Your task to perform on an android device: Show me productivity apps on the Play Store Image 0: 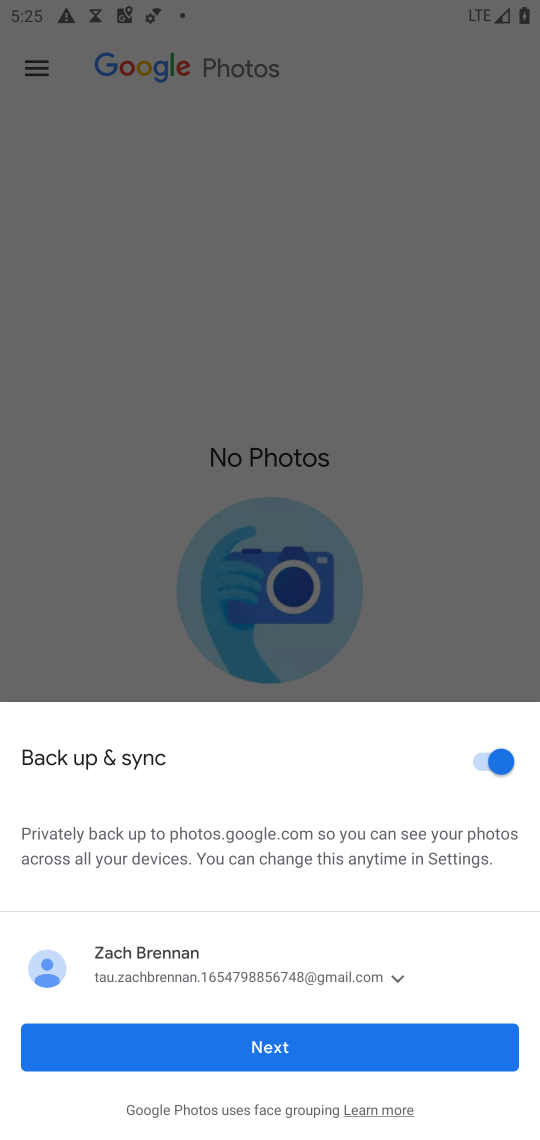
Step 0: press home button
Your task to perform on an android device: Show me productivity apps on the Play Store Image 1: 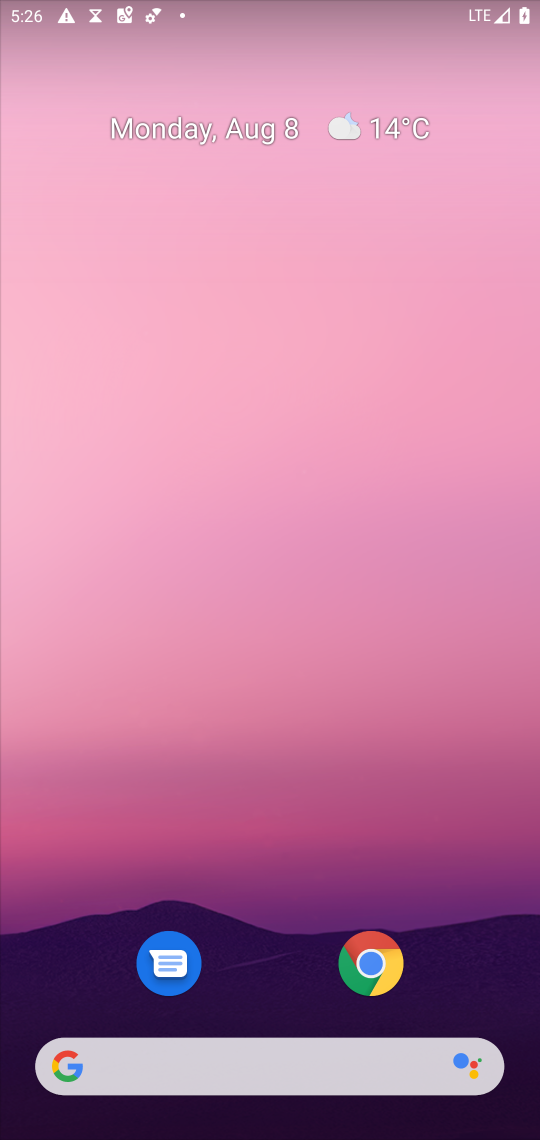
Step 1: drag from (143, 379) to (125, 10)
Your task to perform on an android device: Show me productivity apps on the Play Store Image 2: 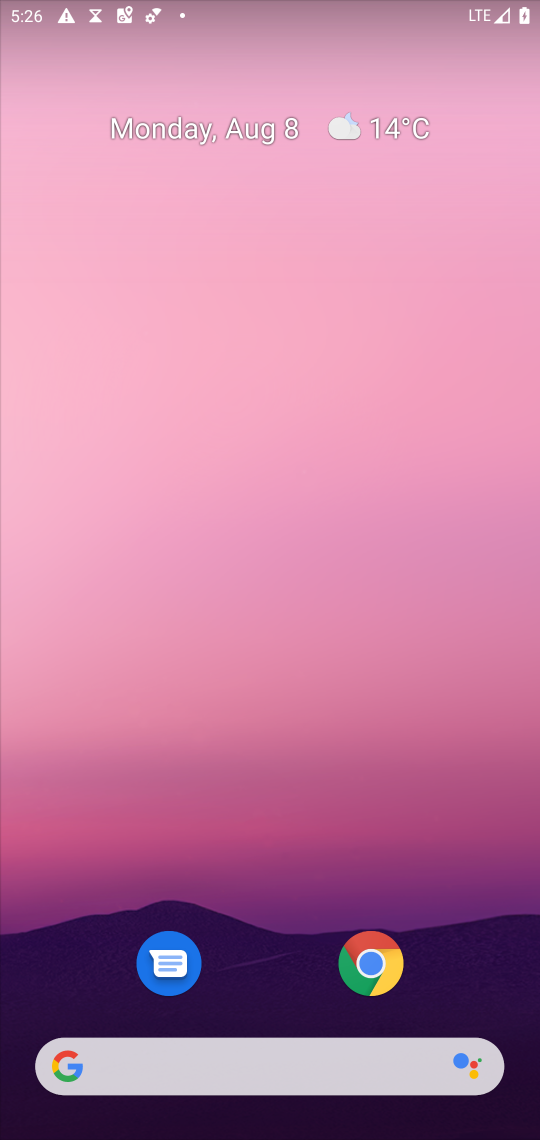
Step 2: drag from (241, 837) to (237, 2)
Your task to perform on an android device: Show me productivity apps on the Play Store Image 3: 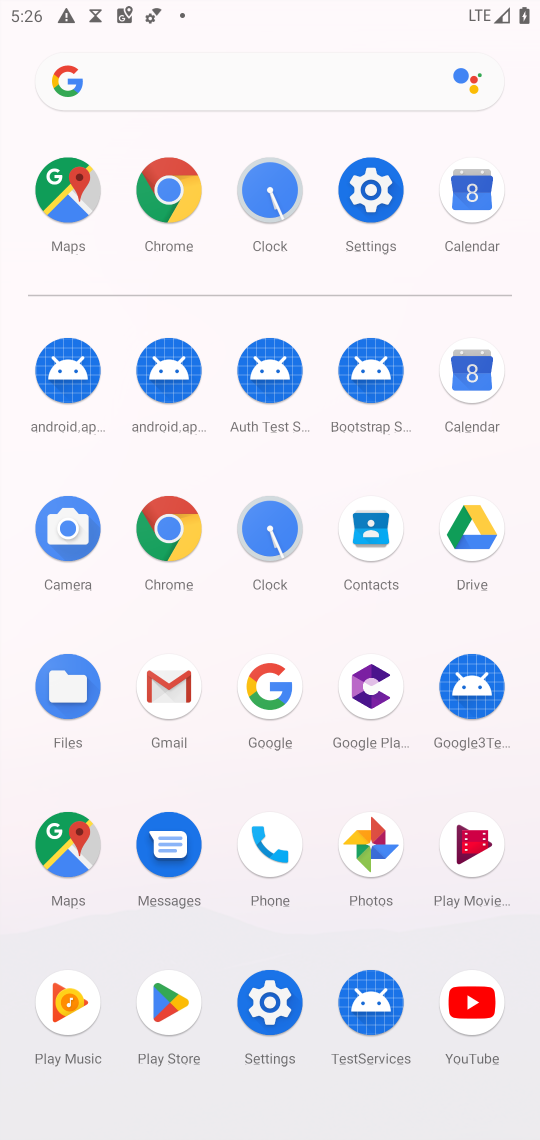
Step 3: click (172, 986)
Your task to perform on an android device: Show me productivity apps on the Play Store Image 4: 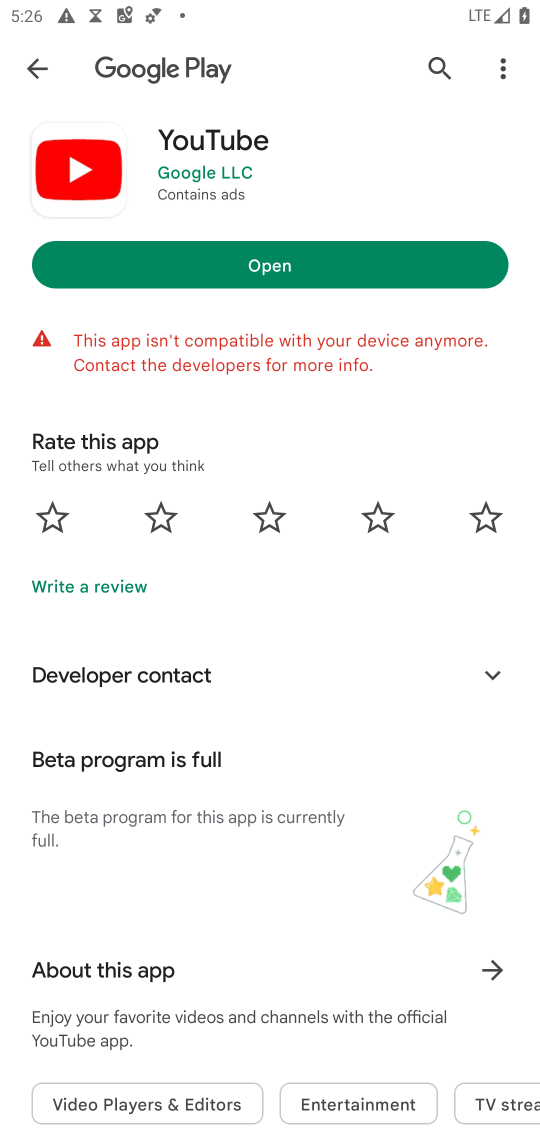
Step 4: click (50, 75)
Your task to perform on an android device: Show me productivity apps on the Play Store Image 5: 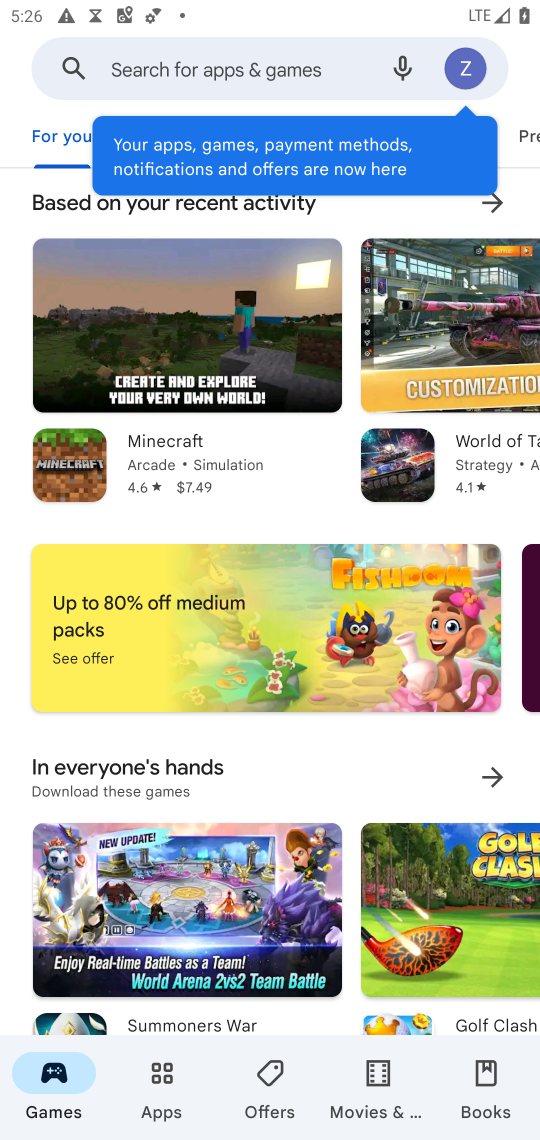
Step 5: click (172, 1070)
Your task to perform on an android device: Show me productivity apps on the Play Store Image 6: 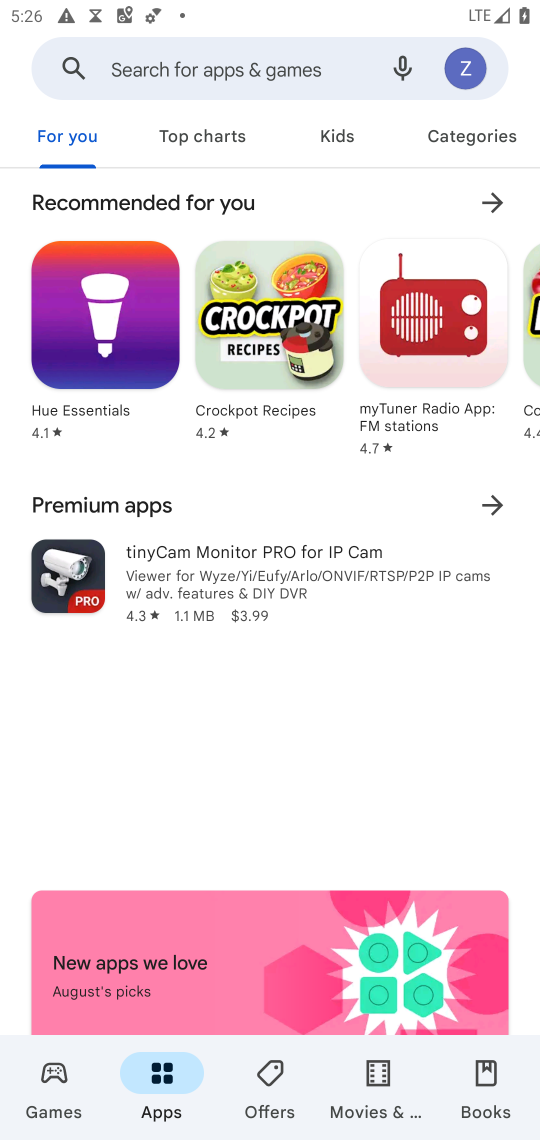
Step 6: click (484, 138)
Your task to perform on an android device: Show me productivity apps on the Play Store Image 7: 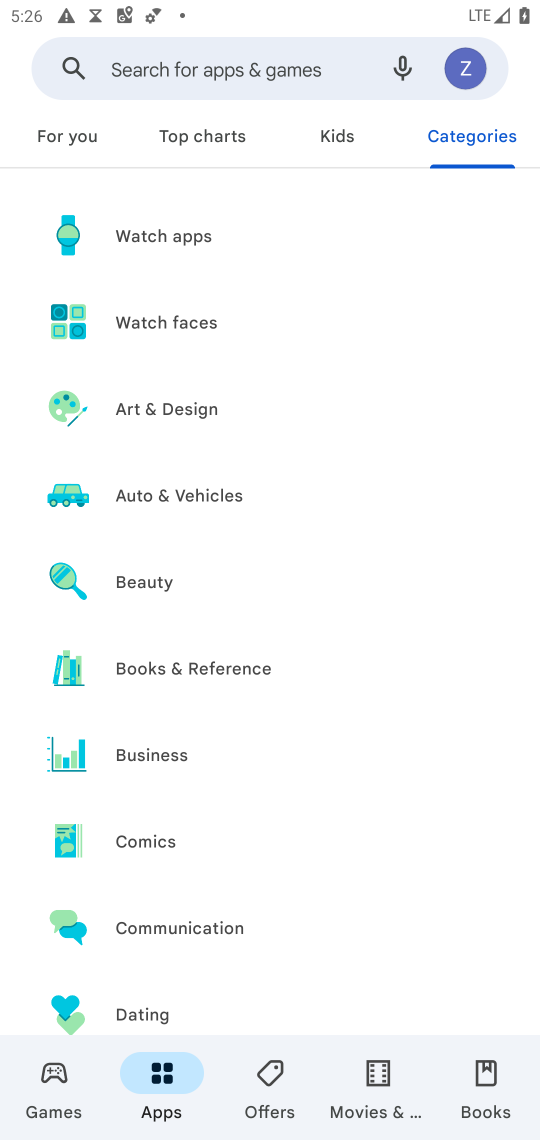
Step 7: drag from (278, 947) to (192, 238)
Your task to perform on an android device: Show me productivity apps on the Play Store Image 8: 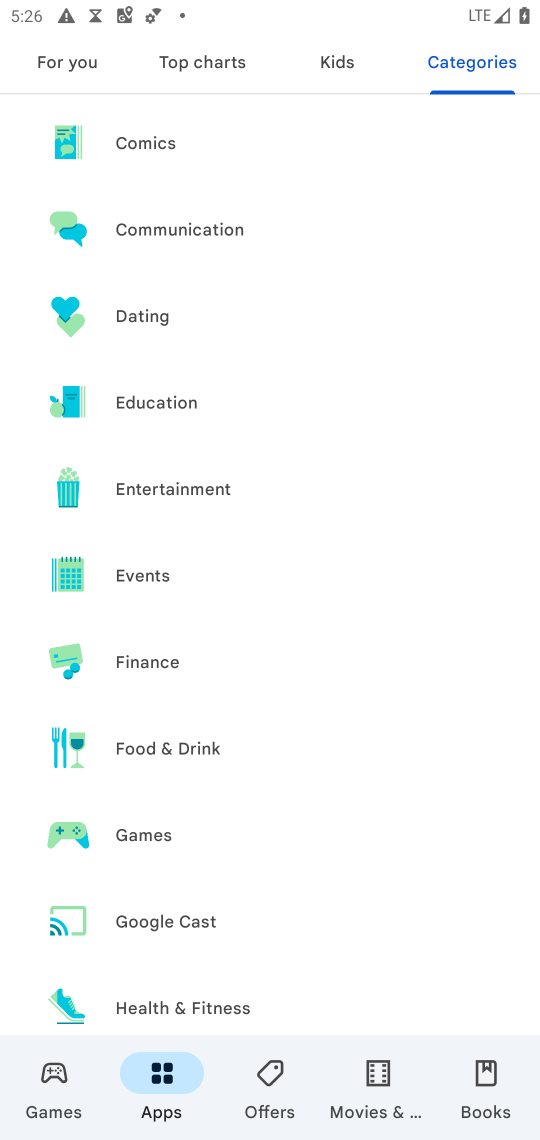
Step 8: drag from (320, 890) to (261, 282)
Your task to perform on an android device: Show me productivity apps on the Play Store Image 9: 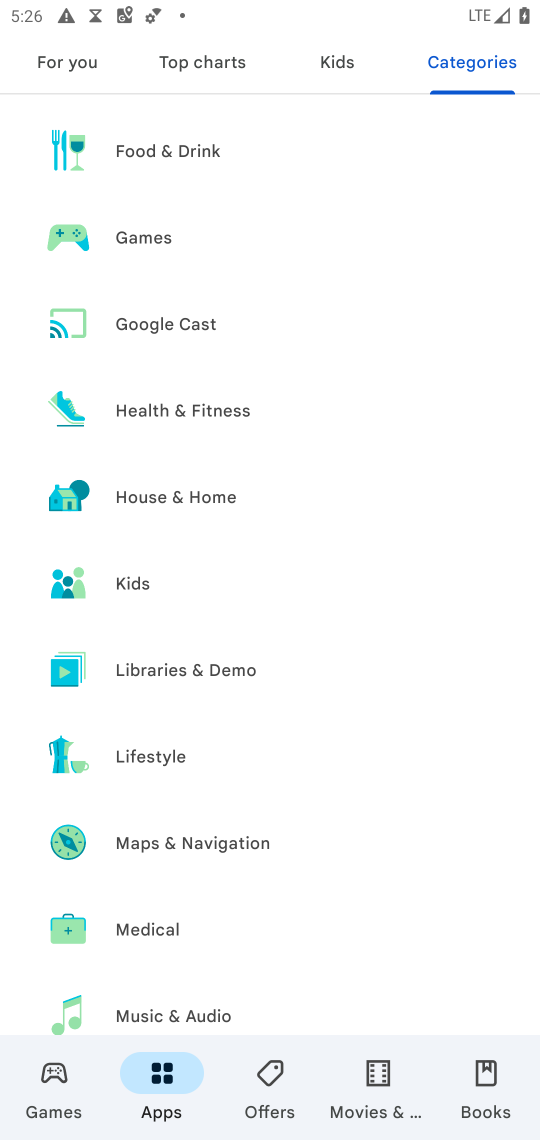
Step 9: drag from (238, 852) to (197, 580)
Your task to perform on an android device: Show me productivity apps on the Play Store Image 10: 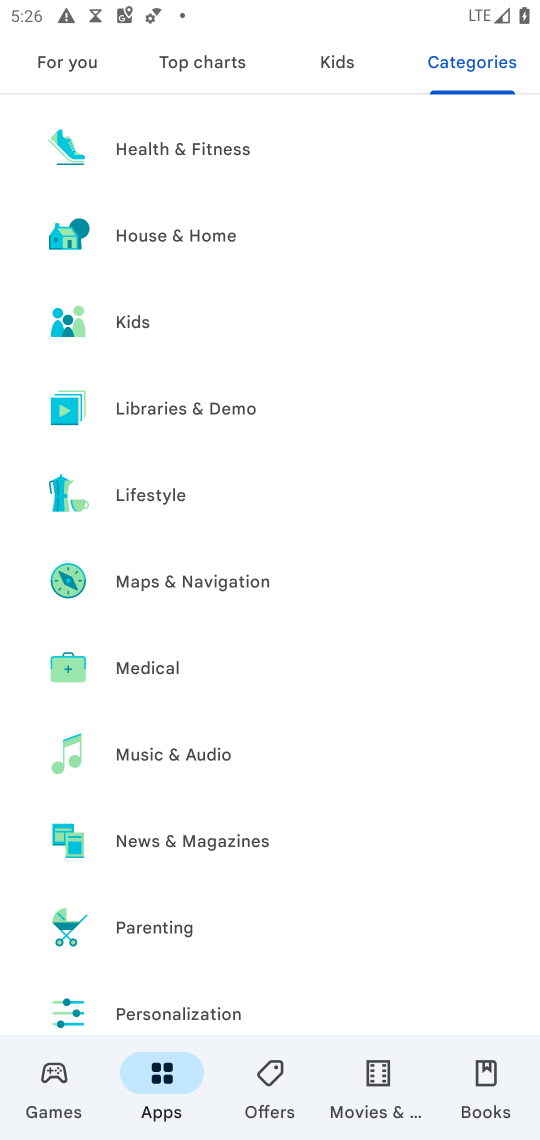
Step 10: drag from (221, 932) to (194, 509)
Your task to perform on an android device: Show me productivity apps on the Play Store Image 11: 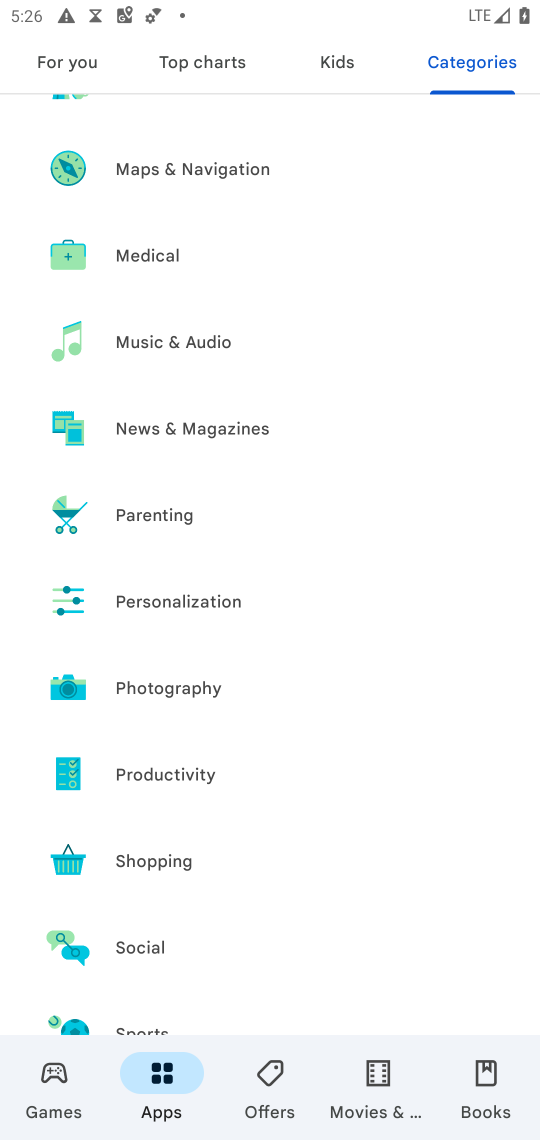
Step 11: click (248, 753)
Your task to perform on an android device: Show me productivity apps on the Play Store Image 12: 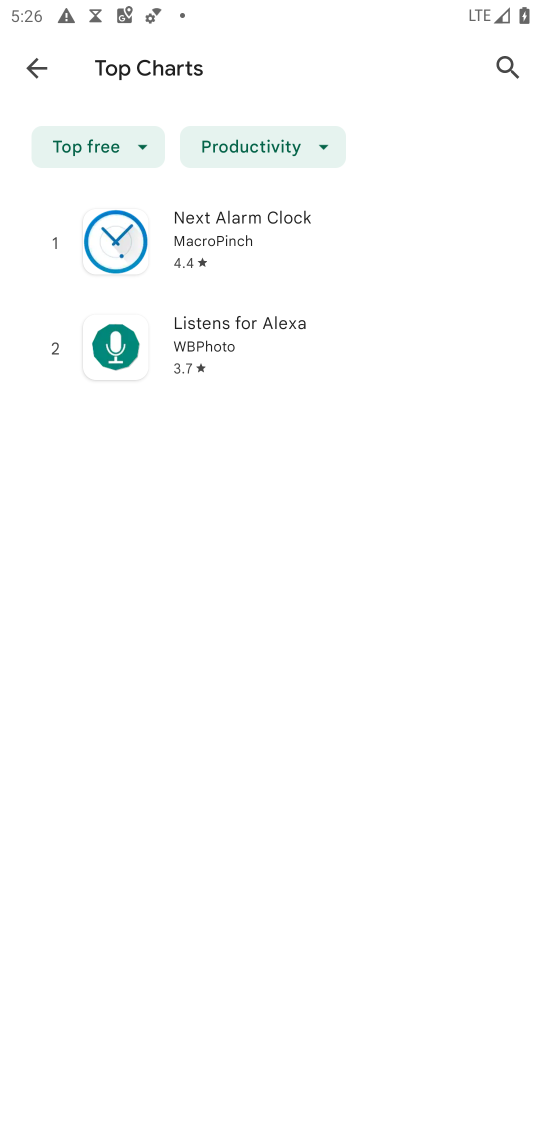
Step 12: task complete